Your task to perform on an android device: Open wifi settings Image 0: 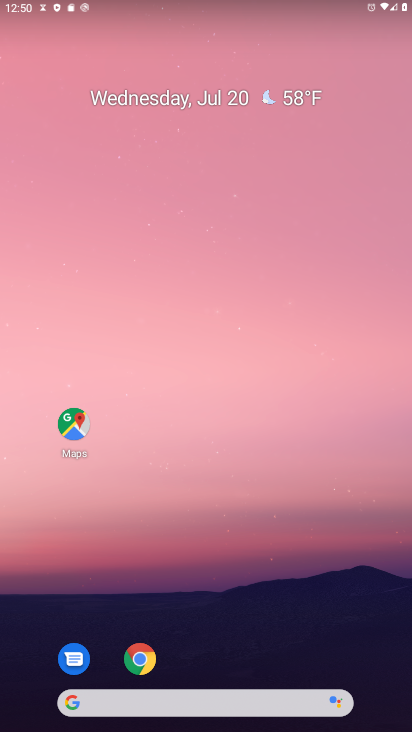
Step 0: press home button
Your task to perform on an android device: Open wifi settings Image 1: 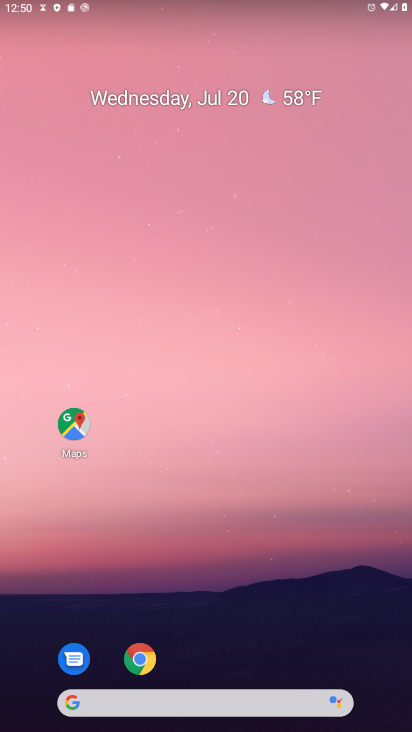
Step 1: drag from (209, 664) to (237, 35)
Your task to perform on an android device: Open wifi settings Image 2: 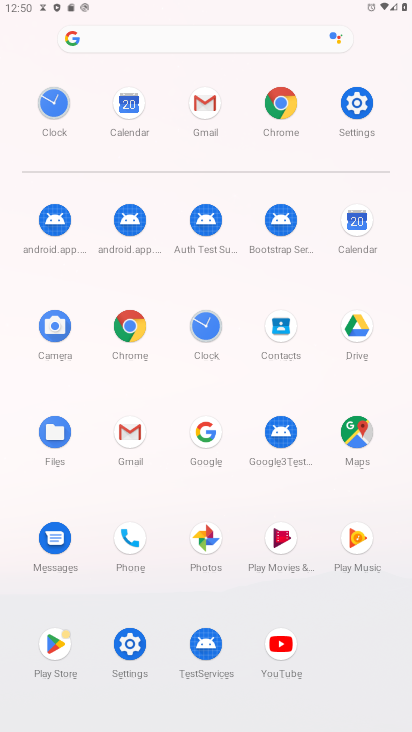
Step 2: click (349, 92)
Your task to perform on an android device: Open wifi settings Image 3: 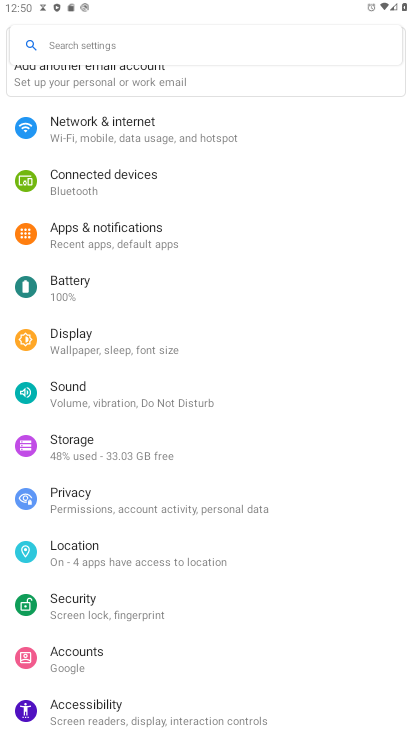
Step 3: click (166, 126)
Your task to perform on an android device: Open wifi settings Image 4: 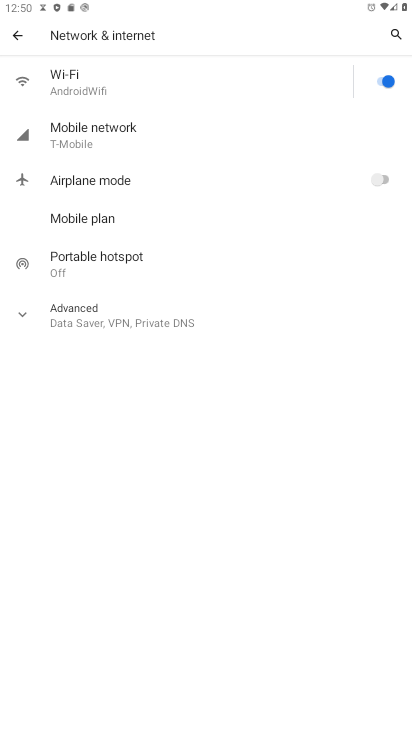
Step 4: click (24, 309)
Your task to perform on an android device: Open wifi settings Image 5: 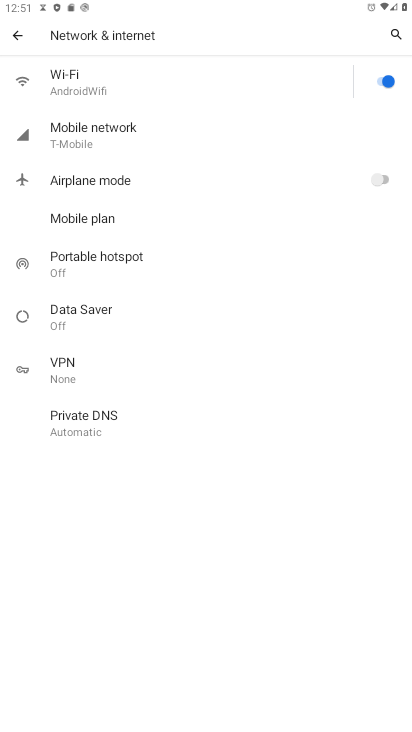
Step 5: click (138, 75)
Your task to perform on an android device: Open wifi settings Image 6: 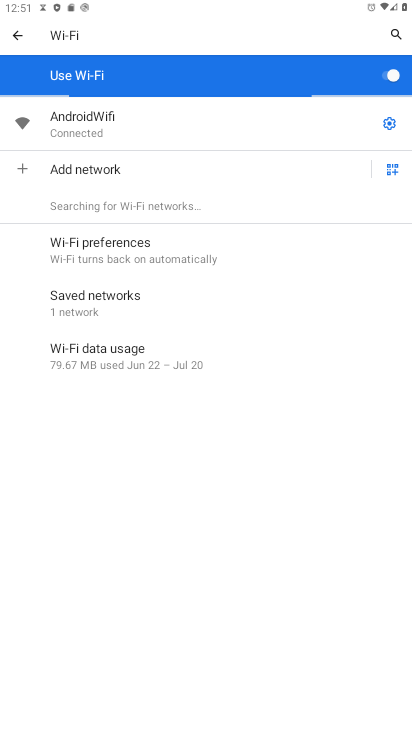
Step 6: task complete